Your task to perform on an android device: Open Youtube and go to "Your channel" Image 0: 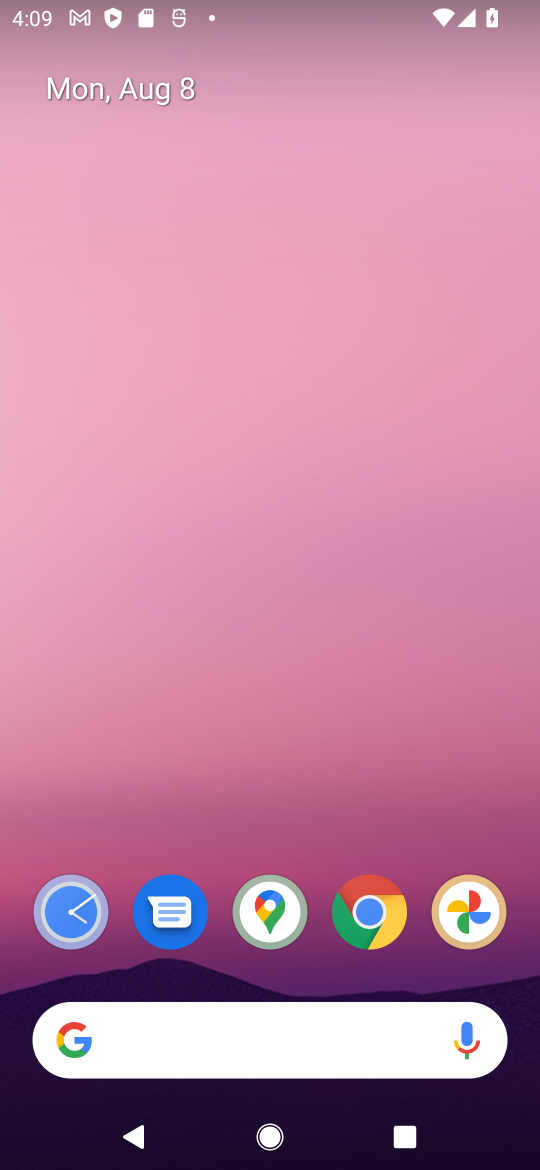
Step 0: task complete